Your task to perform on an android device: Open settings on Google Maps Image 0: 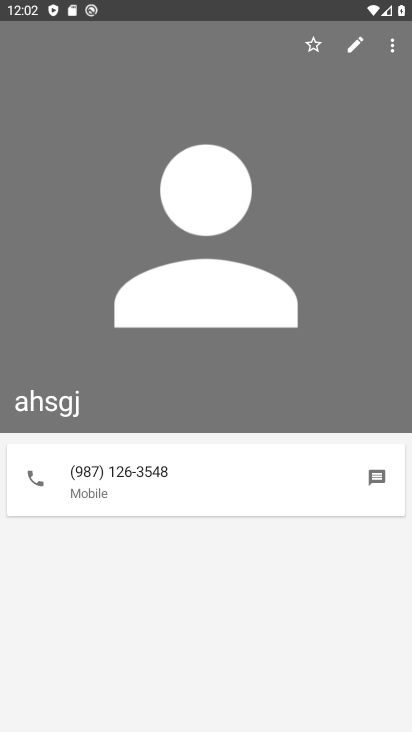
Step 0: press home button
Your task to perform on an android device: Open settings on Google Maps Image 1: 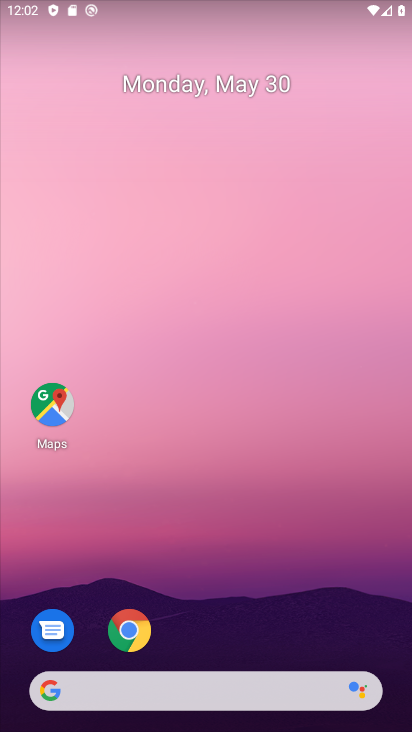
Step 1: click (52, 414)
Your task to perform on an android device: Open settings on Google Maps Image 2: 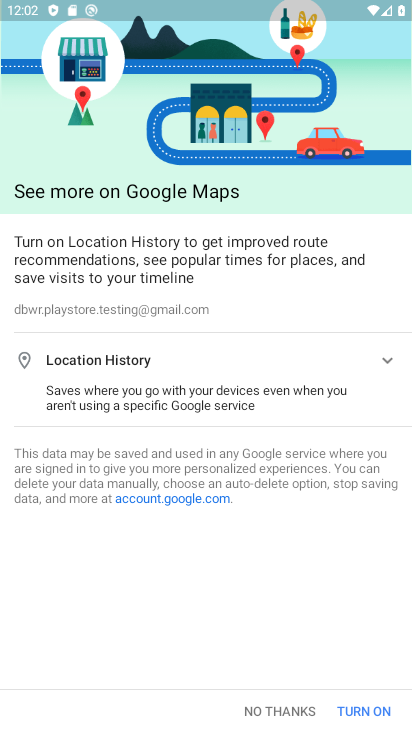
Step 2: click (309, 715)
Your task to perform on an android device: Open settings on Google Maps Image 3: 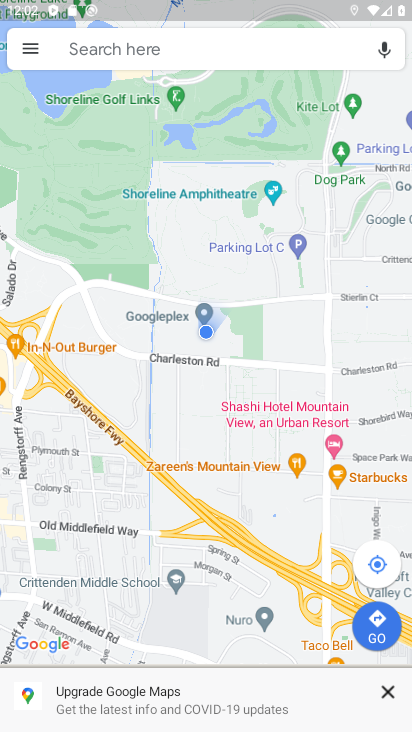
Step 3: click (34, 55)
Your task to perform on an android device: Open settings on Google Maps Image 4: 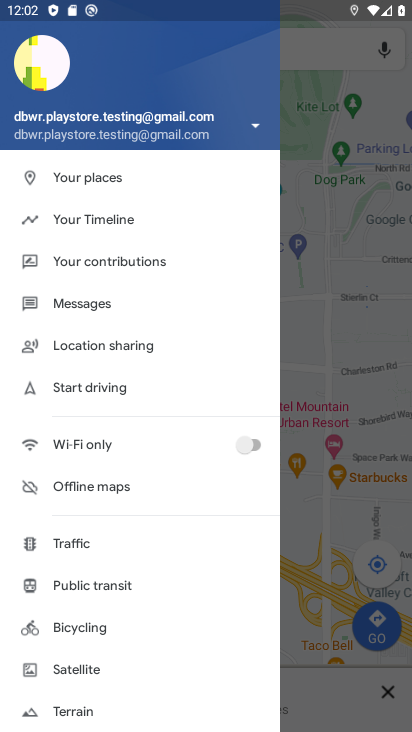
Step 4: drag from (190, 680) to (191, 309)
Your task to perform on an android device: Open settings on Google Maps Image 5: 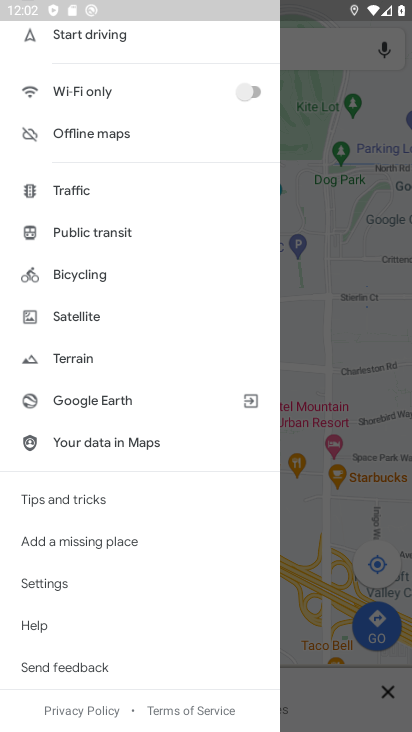
Step 5: click (61, 586)
Your task to perform on an android device: Open settings on Google Maps Image 6: 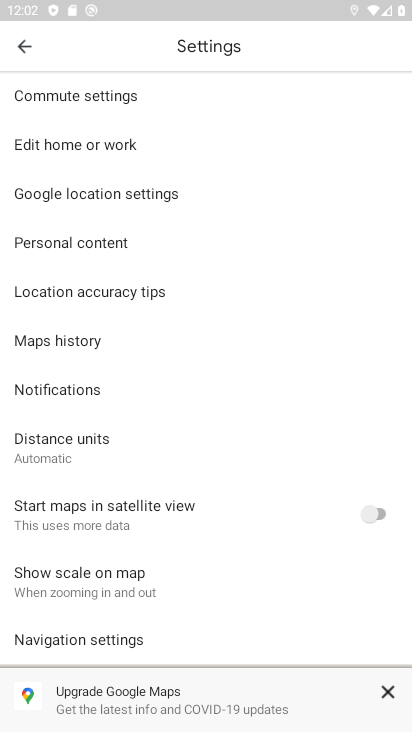
Step 6: task complete